Your task to perform on an android device: Open the calendar app, open the side menu, and click the "Day" option Image 0: 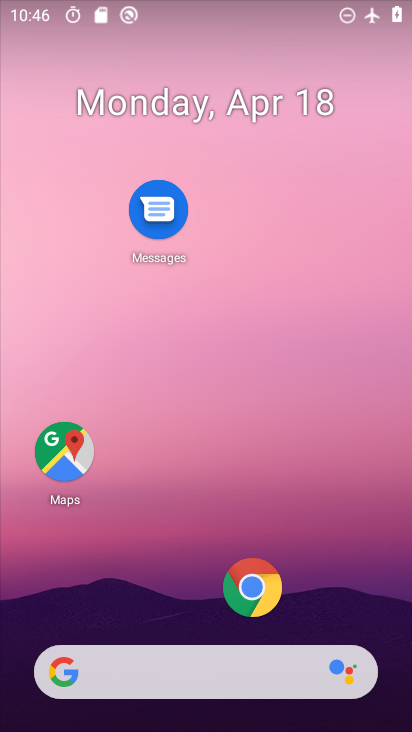
Step 0: drag from (195, 588) to (263, 25)
Your task to perform on an android device: Open the calendar app, open the side menu, and click the "Day" option Image 1: 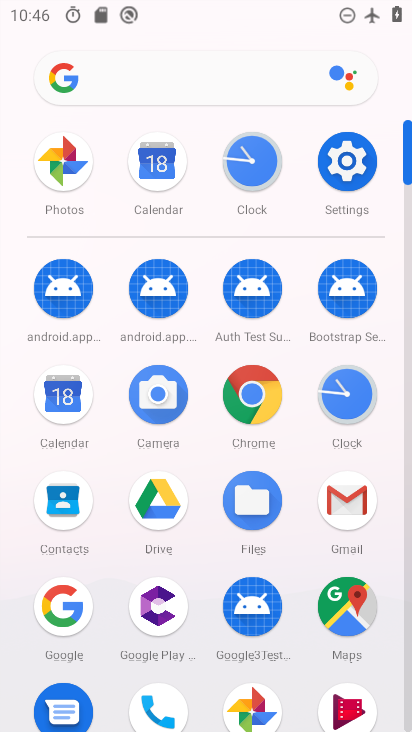
Step 1: click (69, 417)
Your task to perform on an android device: Open the calendar app, open the side menu, and click the "Day" option Image 2: 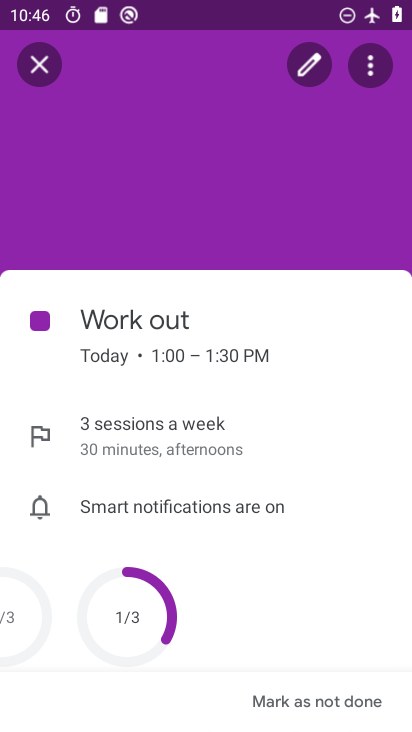
Step 2: click (27, 61)
Your task to perform on an android device: Open the calendar app, open the side menu, and click the "Day" option Image 3: 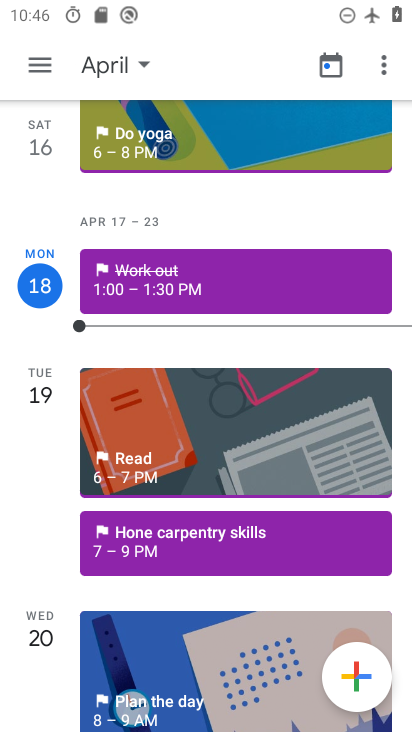
Step 3: click (37, 67)
Your task to perform on an android device: Open the calendar app, open the side menu, and click the "Day" option Image 4: 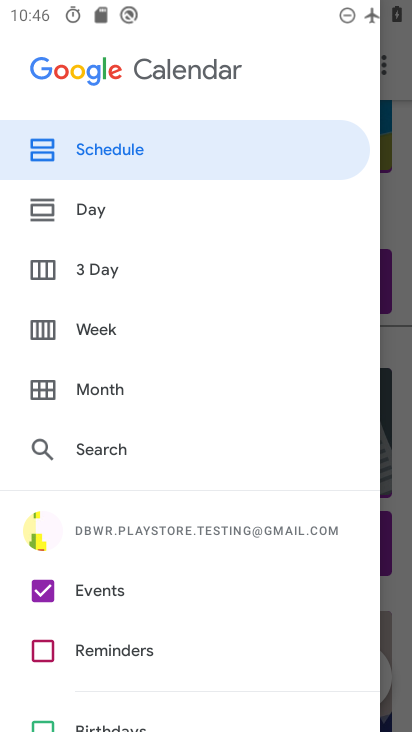
Step 4: click (105, 207)
Your task to perform on an android device: Open the calendar app, open the side menu, and click the "Day" option Image 5: 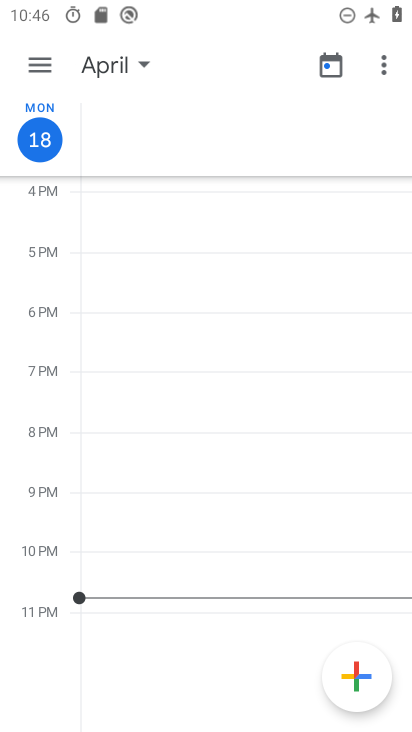
Step 5: task complete